Your task to perform on an android device: all mails in gmail Image 0: 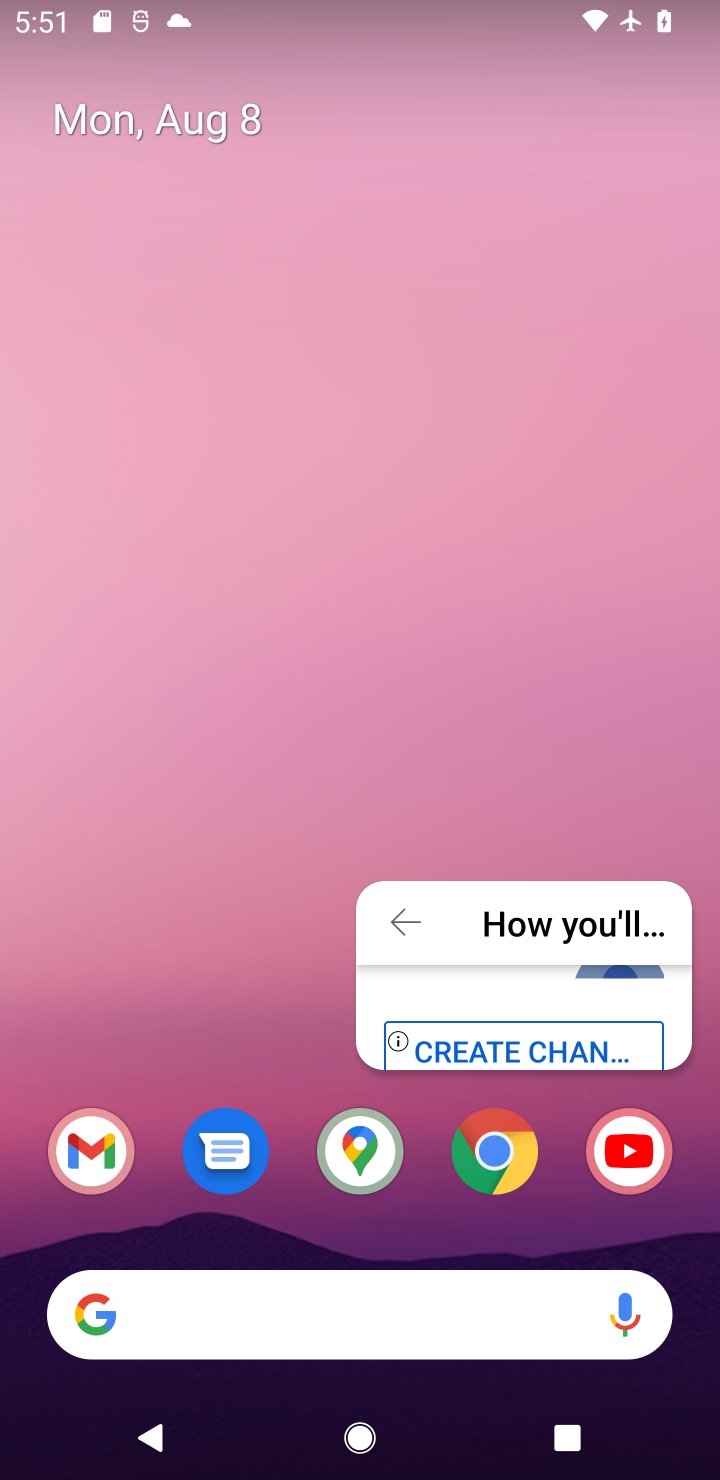
Step 0: click (246, 757)
Your task to perform on an android device: all mails in gmail Image 1: 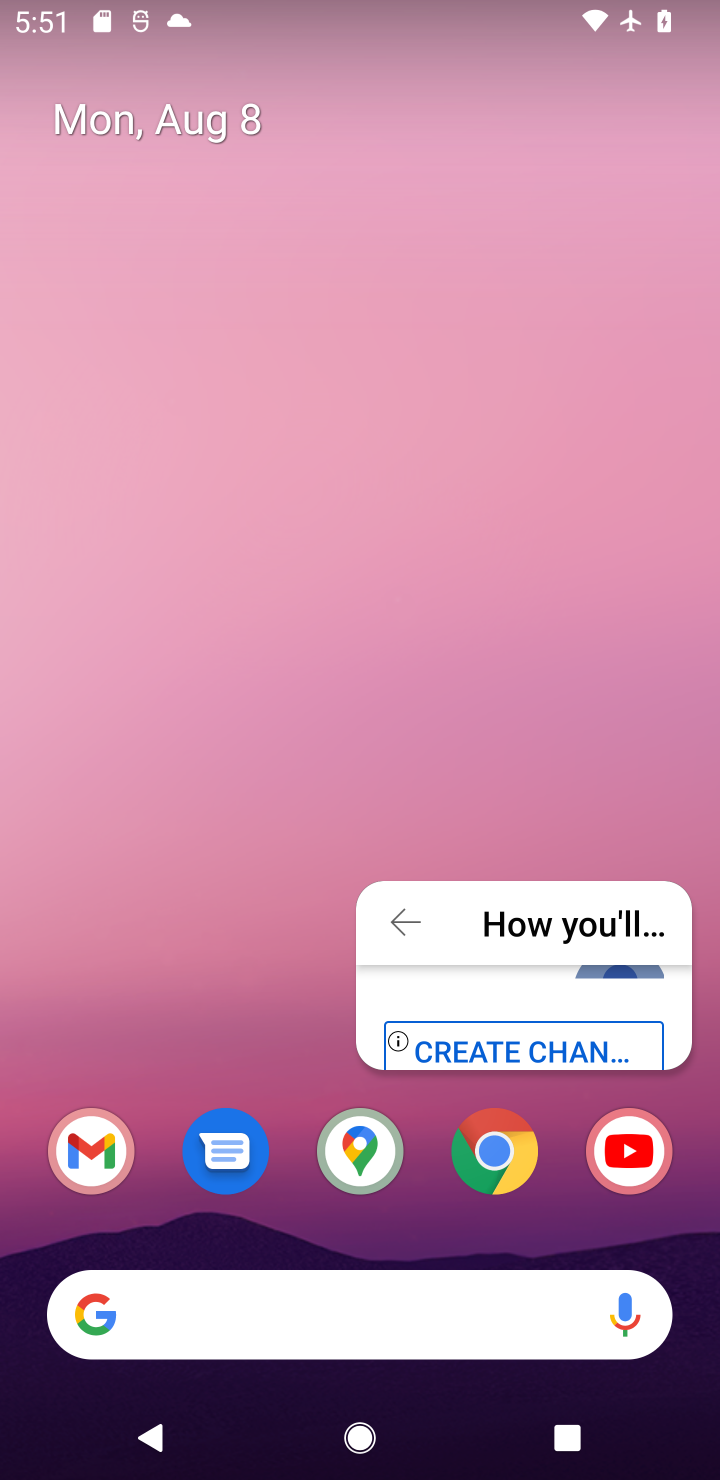
Step 1: drag from (320, 1044) to (325, 117)
Your task to perform on an android device: all mails in gmail Image 2: 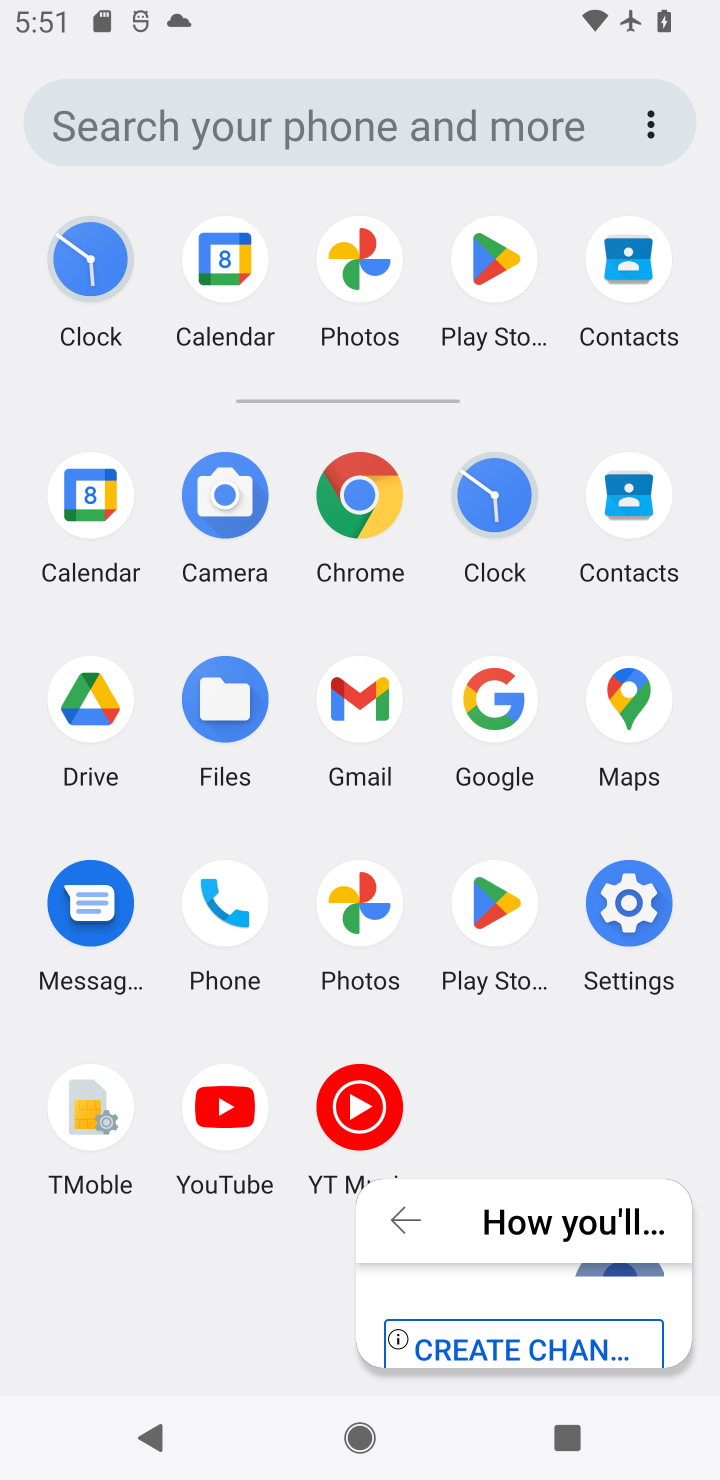
Step 2: click (349, 724)
Your task to perform on an android device: all mails in gmail Image 3: 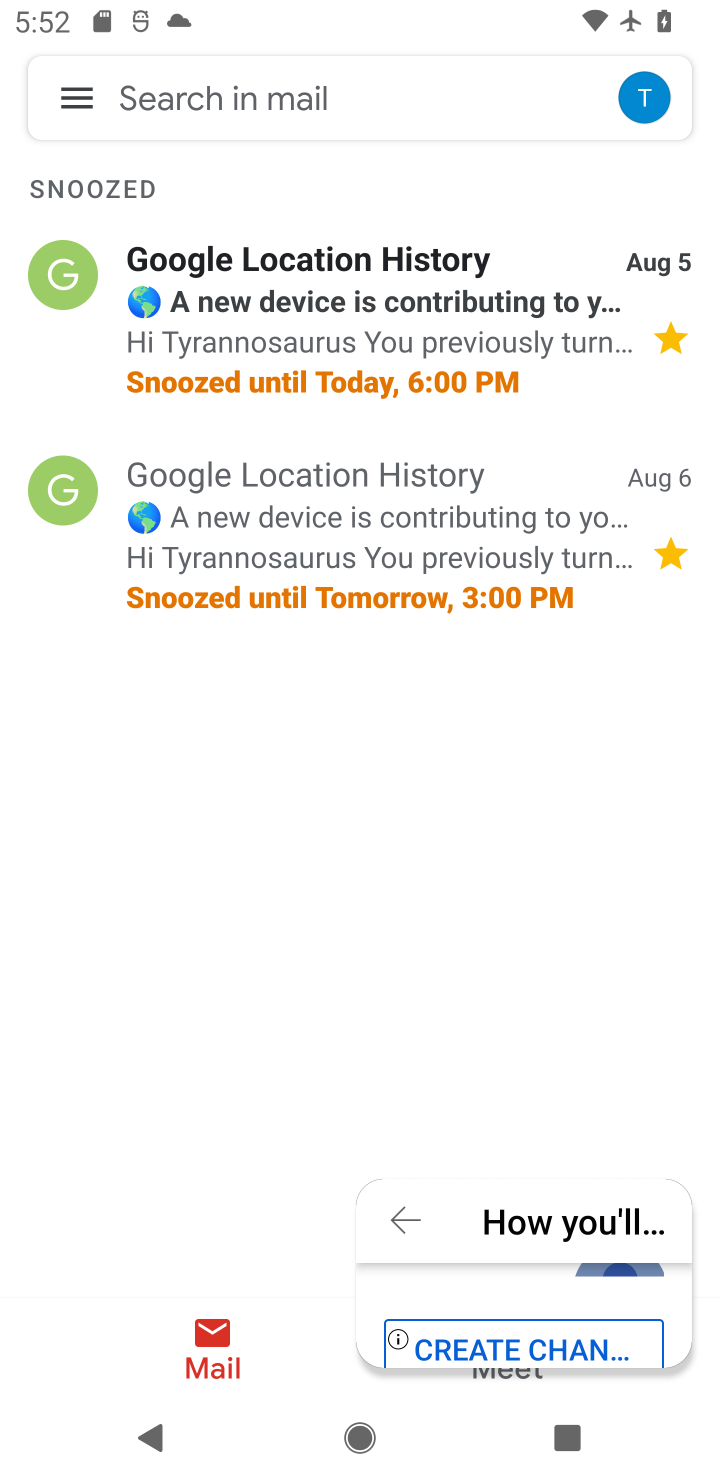
Step 3: click (92, 103)
Your task to perform on an android device: all mails in gmail Image 4: 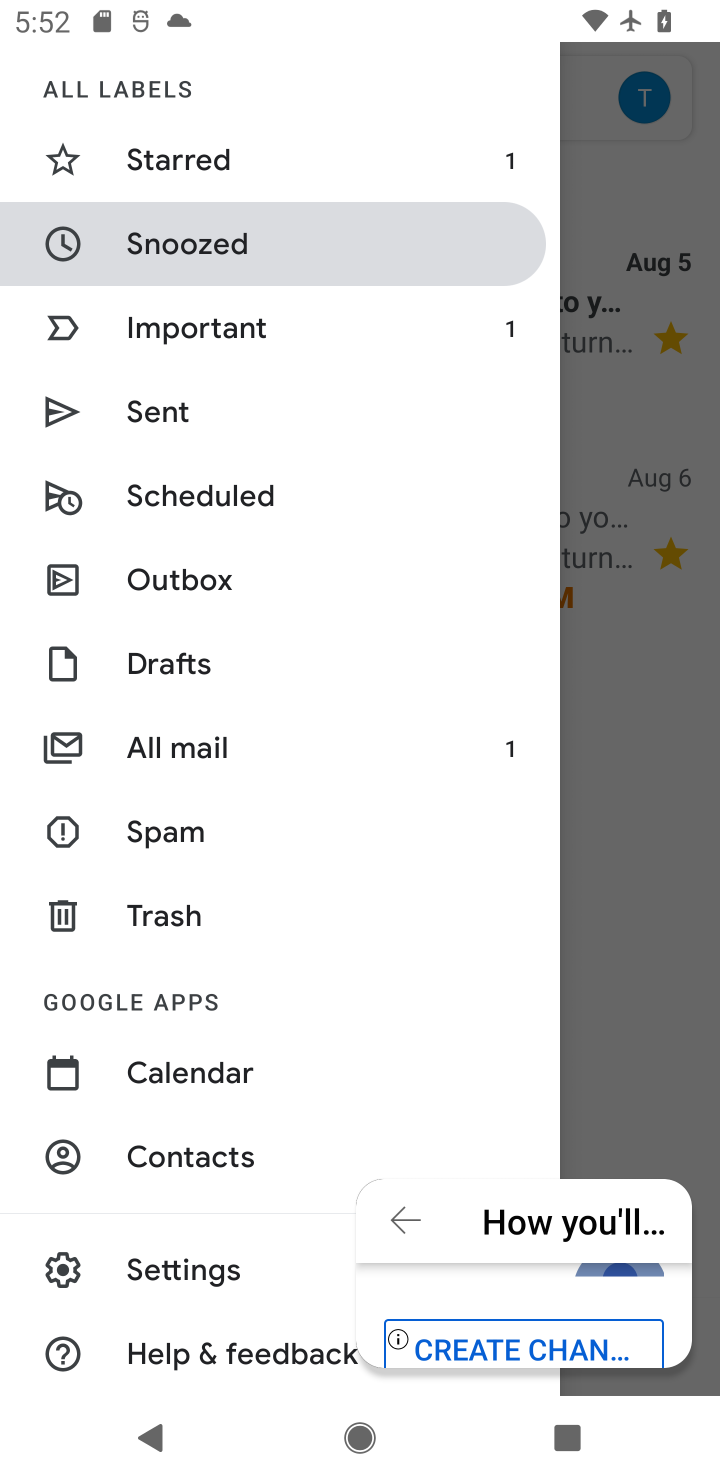
Step 4: click (196, 760)
Your task to perform on an android device: all mails in gmail Image 5: 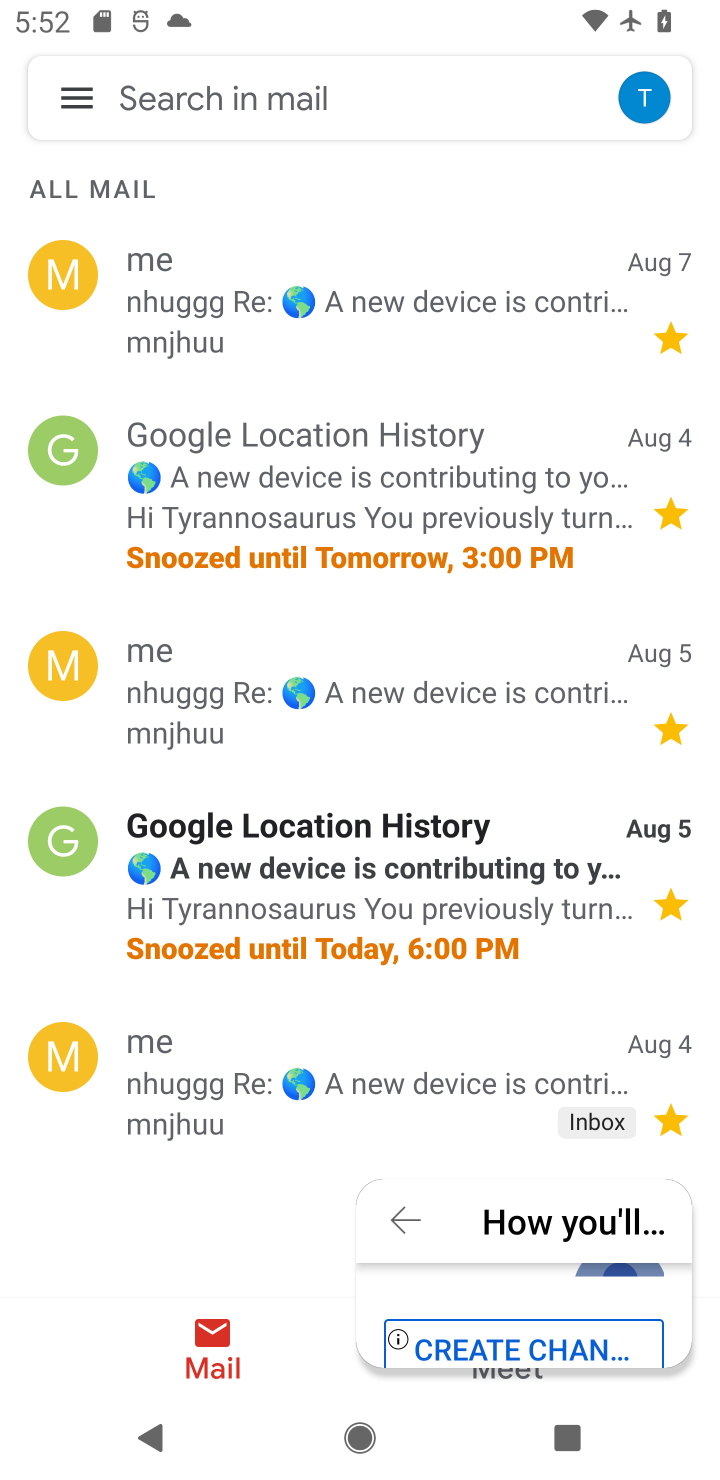
Step 5: task complete